Your task to perform on an android device: Open Chrome and go to the settings page Image 0: 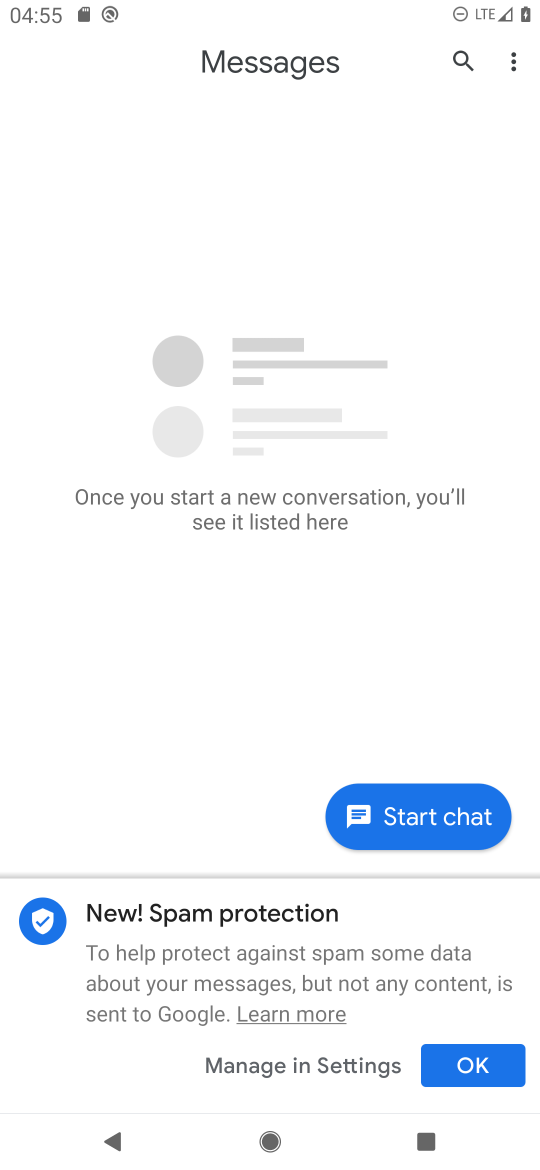
Step 0: press home button
Your task to perform on an android device: Open Chrome and go to the settings page Image 1: 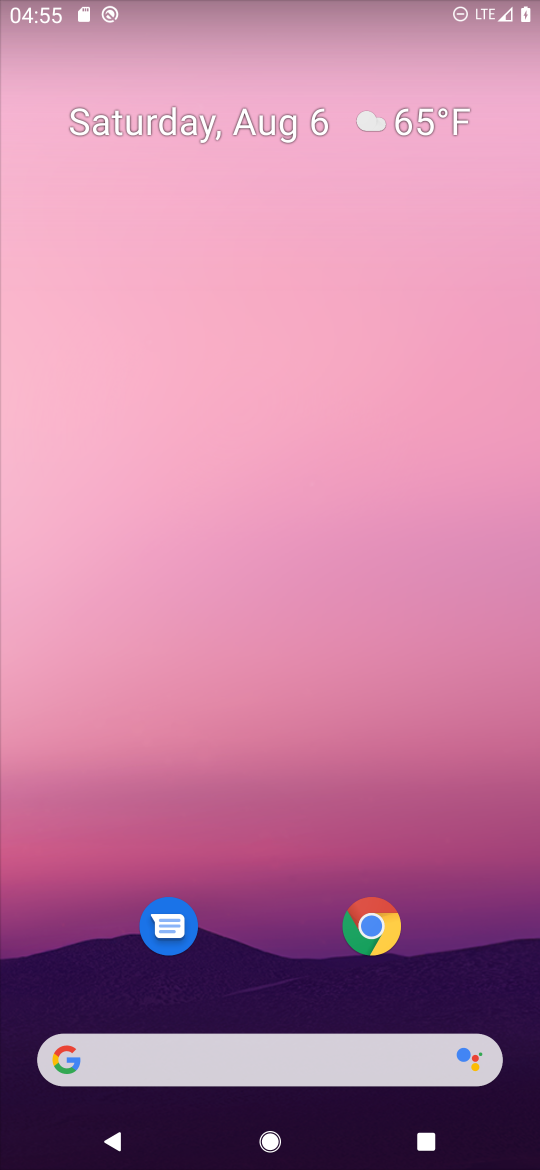
Step 1: click (359, 893)
Your task to perform on an android device: Open Chrome and go to the settings page Image 2: 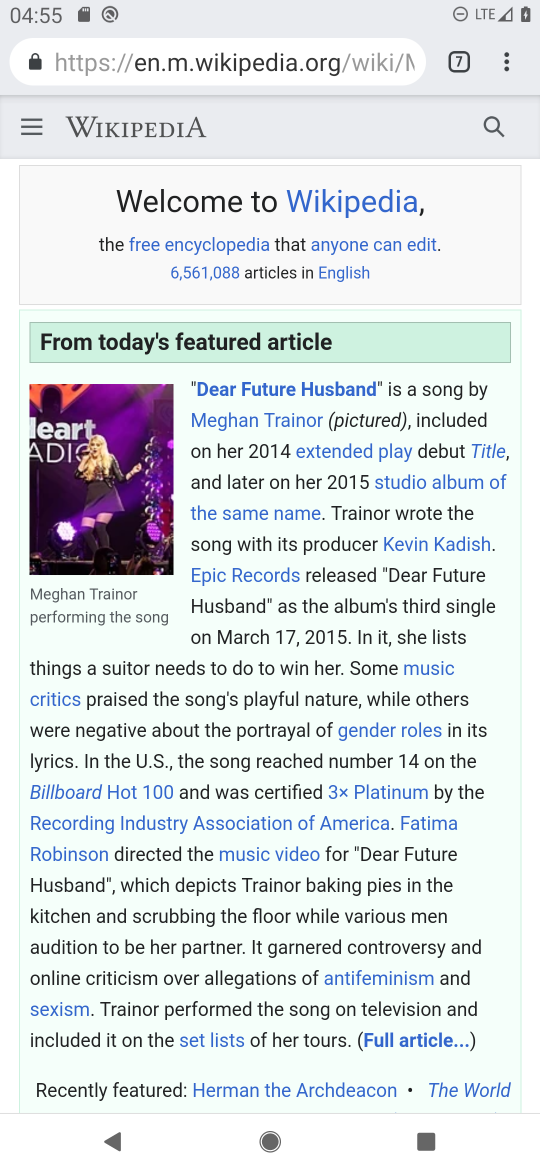
Step 2: click (500, 68)
Your task to perform on an android device: Open Chrome and go to the settings page Image 3: 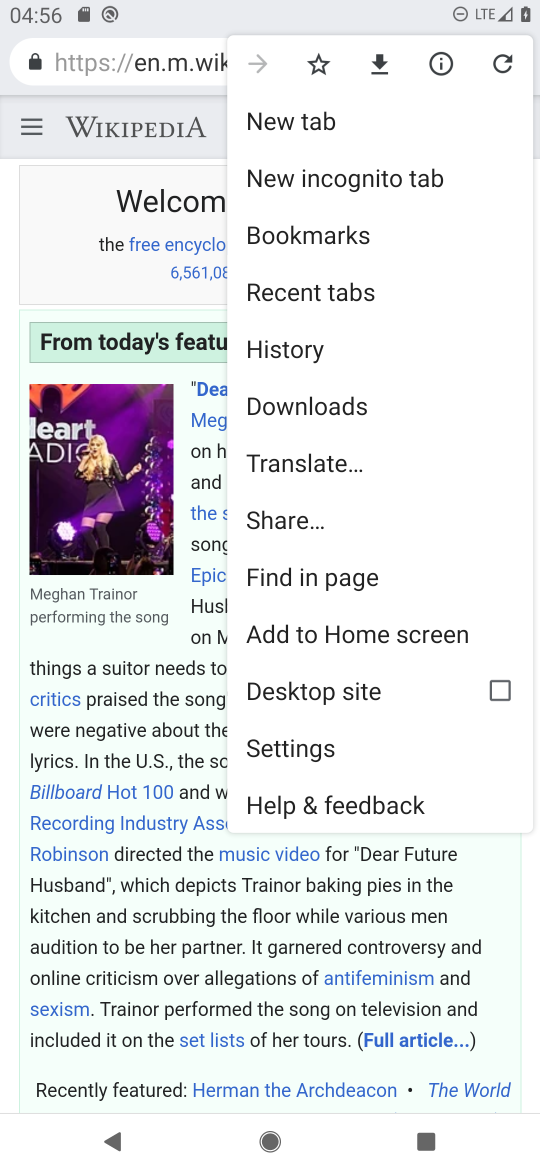
Step 3: click (318, 739)
Your task to perform on an android device: Open Chrome and go to the settings page Image 4: 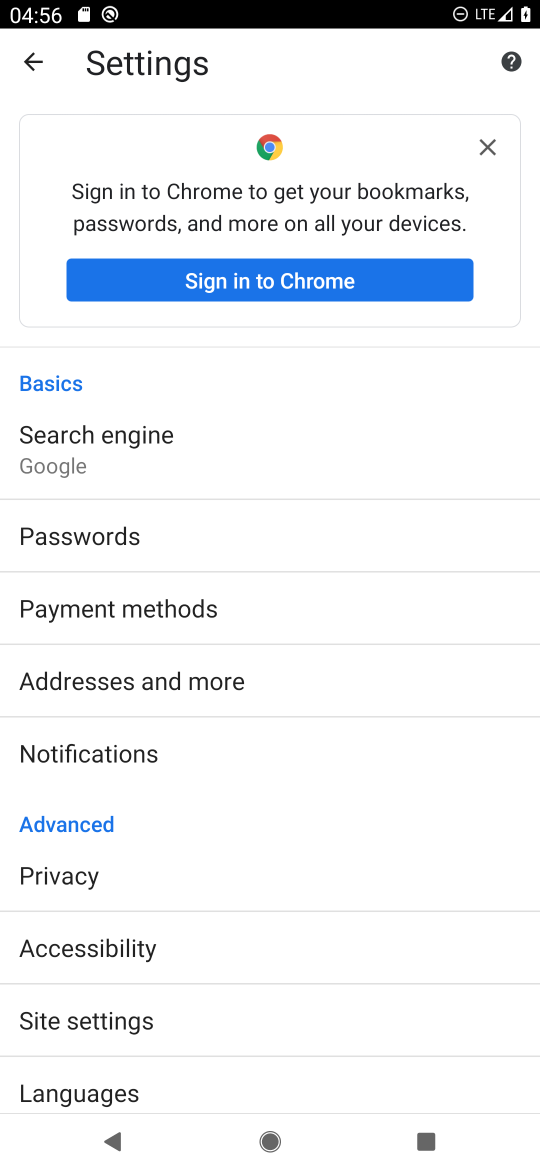
Step 4: task complete